Your task to perform on an android device: add a label to a message in the gmail app Image 0: 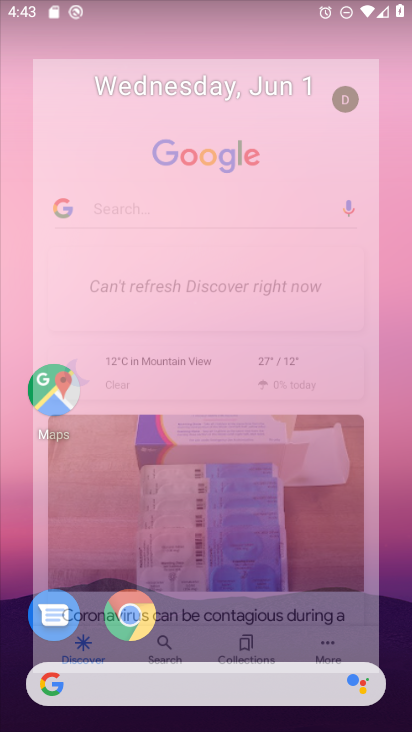
Step 0: press home button
Your task to perform on an android device: add a label to a message in the gmail app Image 1: 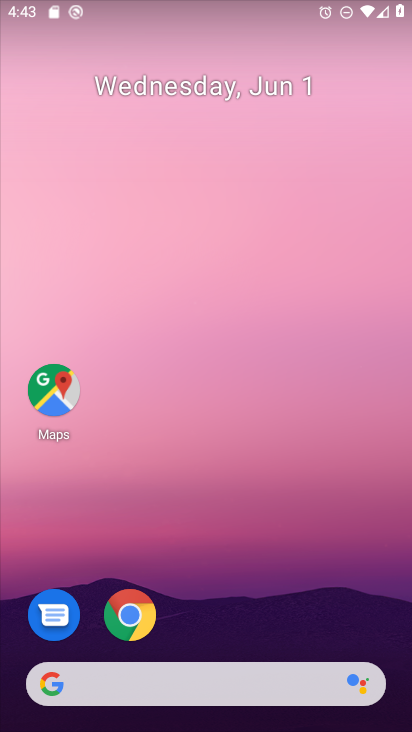
Step 1: drag from (211, 629) to (253, 129)
Your task to perform on an android device: add a label to a message in the gmail app Image 2: 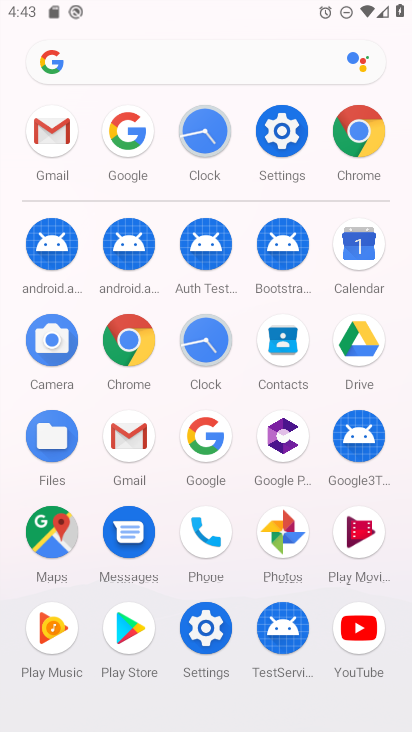
Step 2: click (114, 432)
Your task to perform on an android device: add a label to a message in the gmail app Image 3: 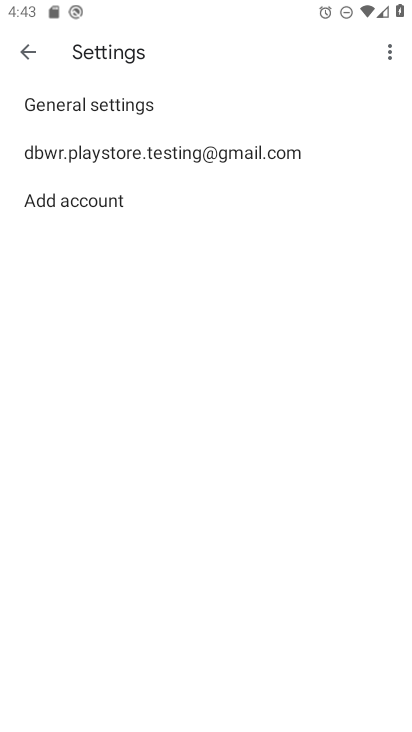
Step 3: click (23, 52)
Your task to perform on an android device: add a label to a message in the gmail app Image 4: 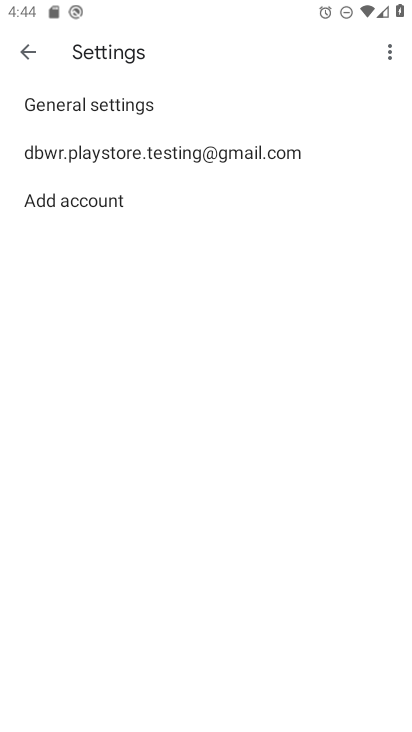
Step 4: task complete